Your task to perform on an android device: check out phone information Image 0: 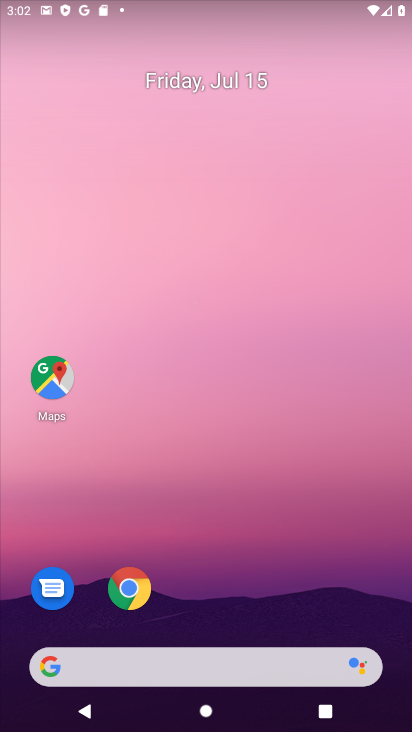
Step 0: drag from (389, 627) to (239, 159)
Your task to perform on an android device: check out phone information Image 1: 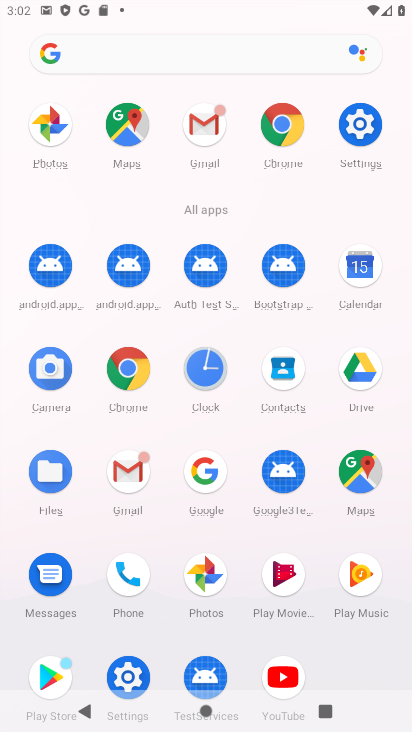
Step 1: click (353, 128)
Your task to perform on an android device: check out phone information Image 2: 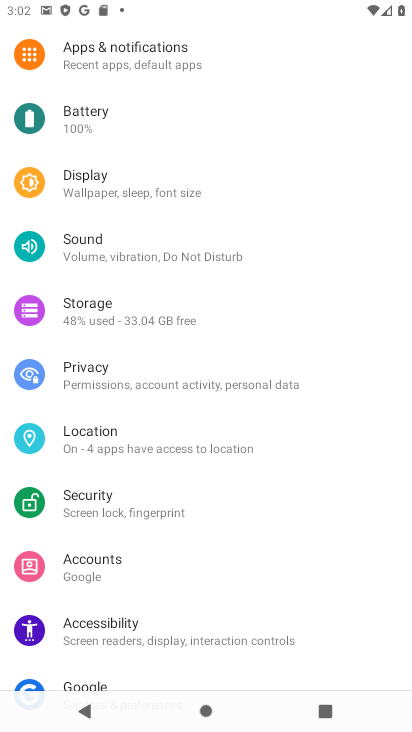
Step 2: drag from (327, 656) to (245, 307)
Your task to perform on an android device: check out phone information Image 3: 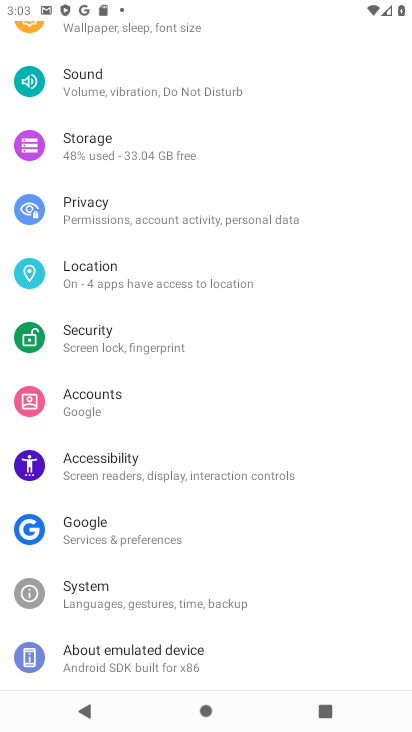
Step 3: click (263, 660)
Your task to perform on an android device: check out phone information Image 4: 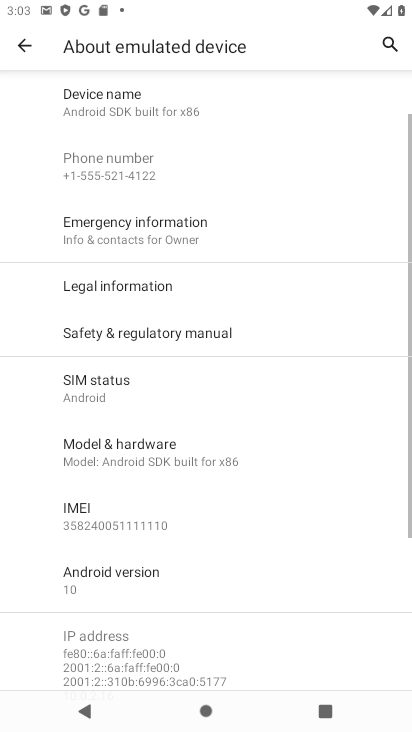
Step 4: task complete